Your task to perform on an android device: empty trash in google photos Image 0: 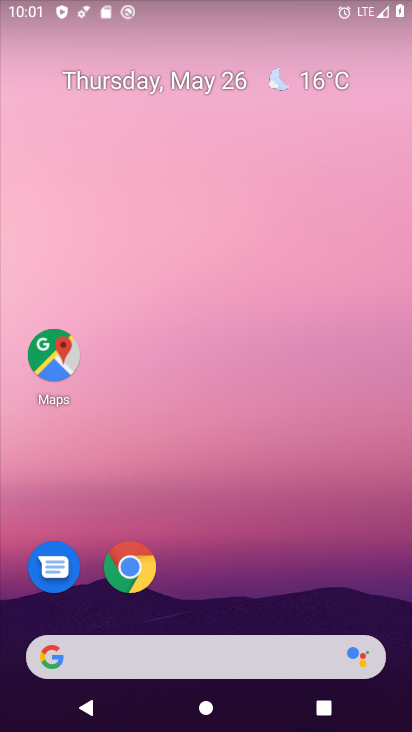
Step 0: click (359, 526)
Your task to perform on an android device: empty trash in google photos Image 1: 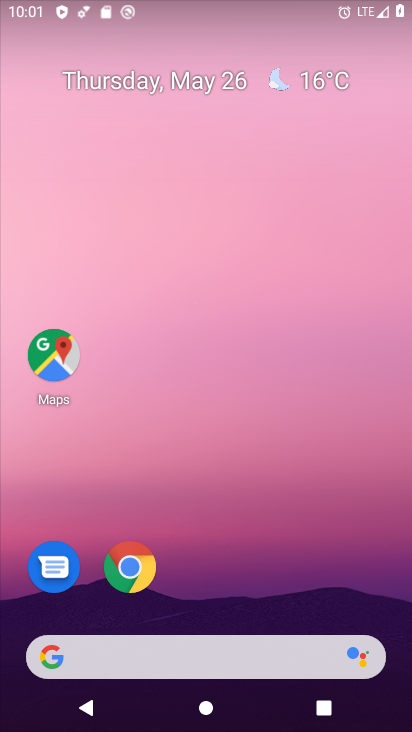
Step 1: drag from (392, 676) to (309, 63)
Your task to perform on an android device: empty trash in google photos Image 2: 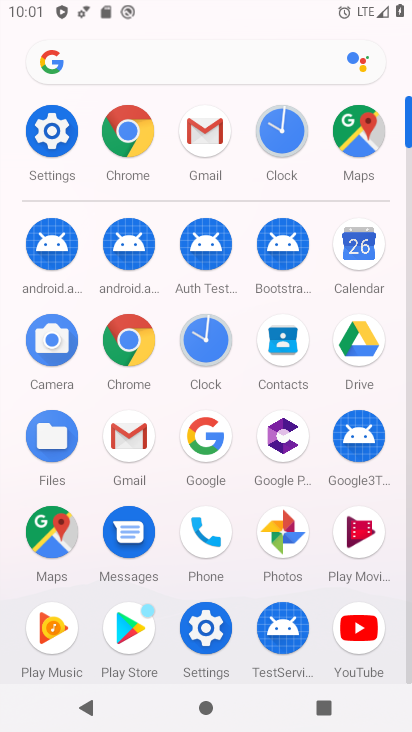
Step 2: click (275, 530)
Your task to perform on an android device: empty trash in google photos Image 3: 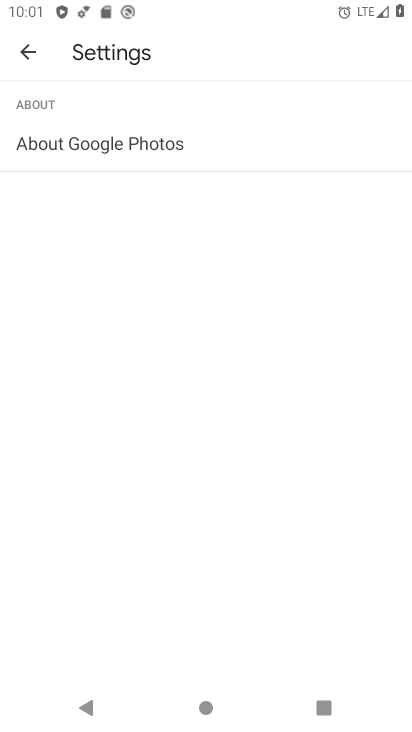
Step 3: click (26, 48)
Your task to perform on an android device: empty trash in google photos Image 4: 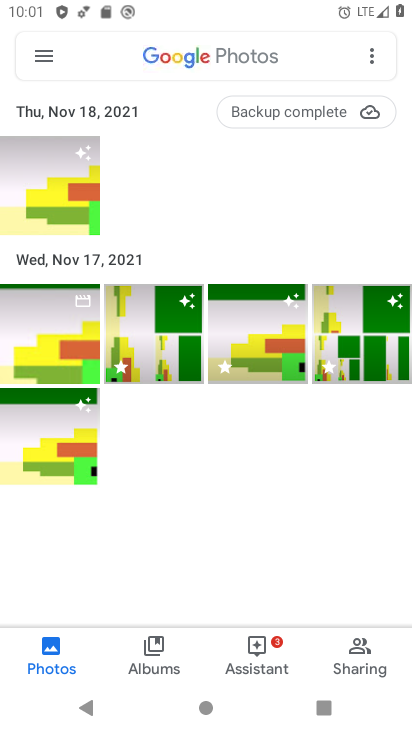
Step 4: click (36, 46)
Your task to perform on an android device: empty trash in google photos Image 5: 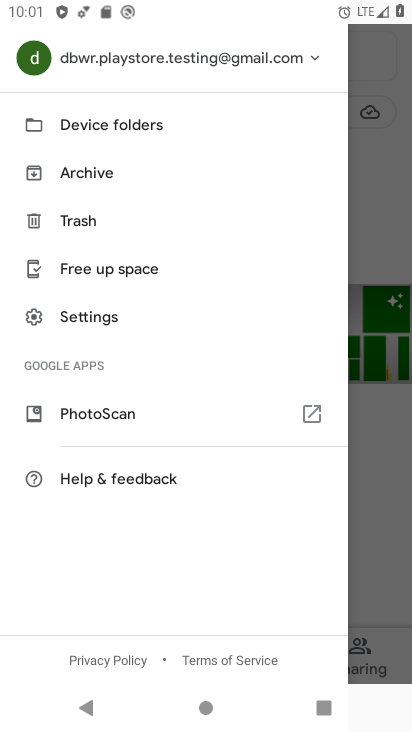
Step 5: click (47, 213)
Your task to perform on an android device: empty trash in google photos Image 6: 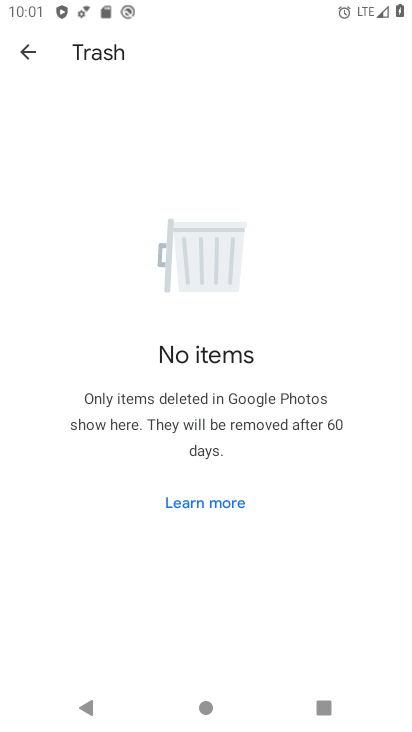
Step 6: task complete